Your task to perform on an android device: find photos in the google photos app Image 0: 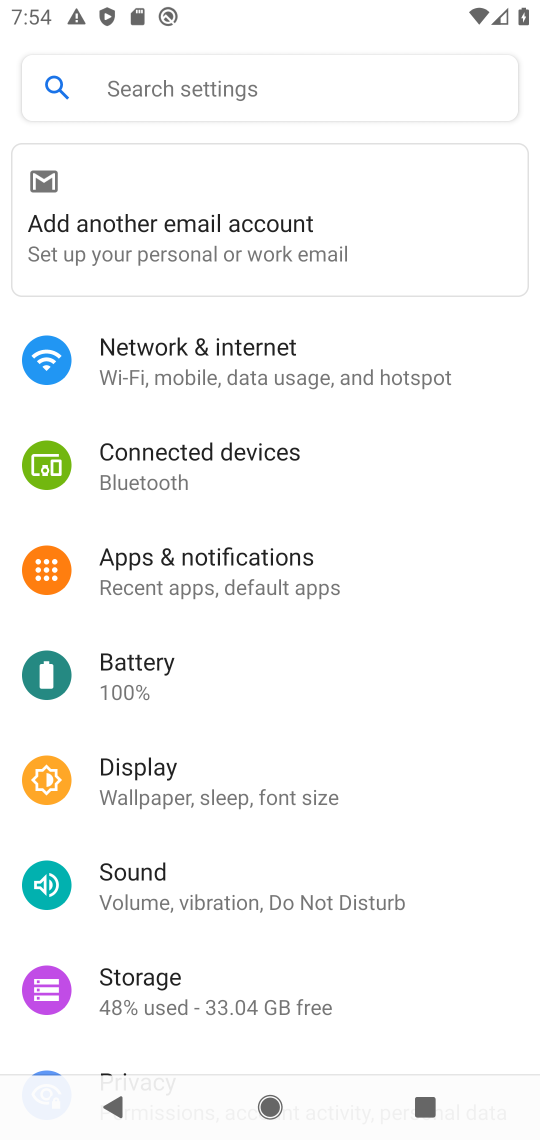
Step 0: press home button
Your task to perform on an android device: find photos in the google photos app Image 1: 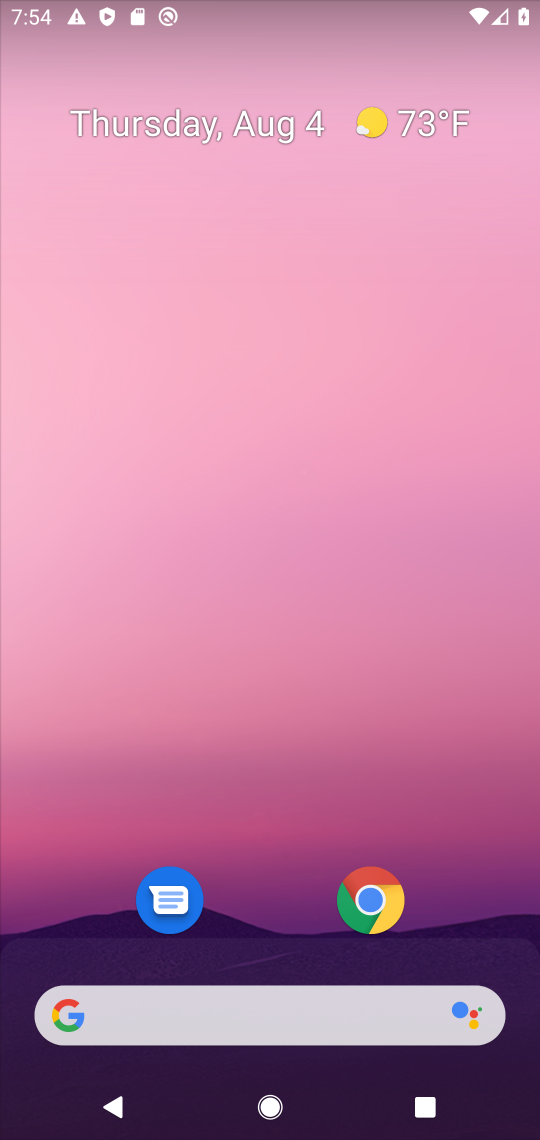
Step 1: click (311, 16)
Your task to perform on an android device: find photos in the google photos app Image 2: 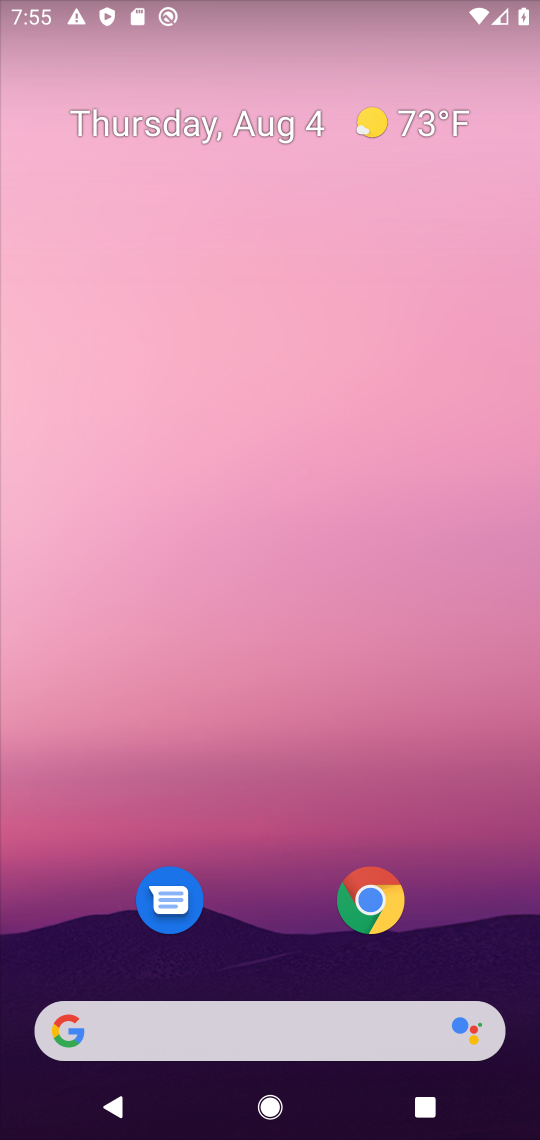
Step 2: drag from (231, 950) to (259, 225)
Your task to perform on an android device: find photos in the google photos app Image 3: 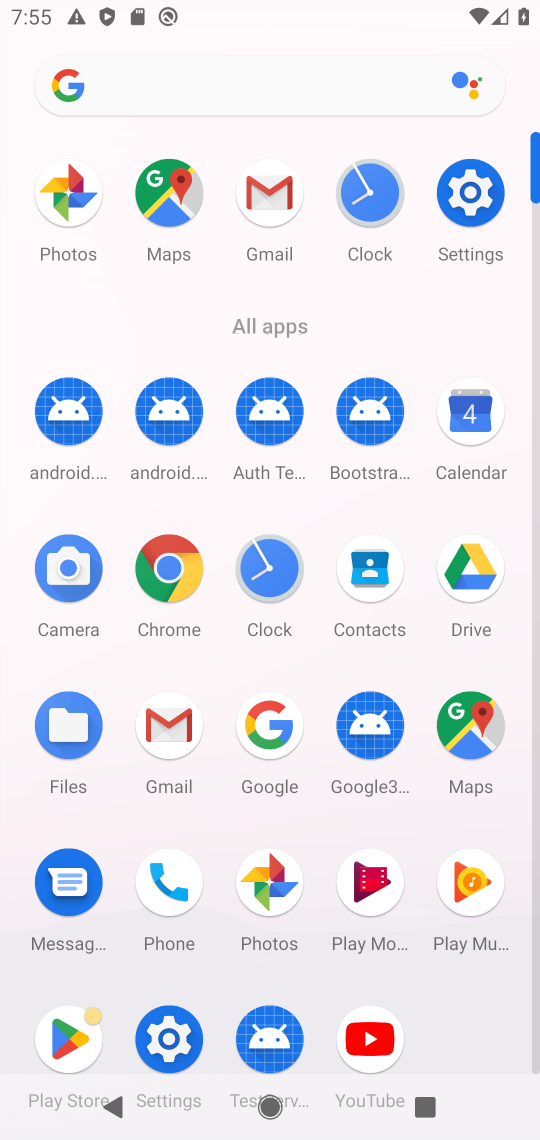
Step 3: click (285, 860)
Your task to perform on an android device: find photos in the google photos app Image 4: 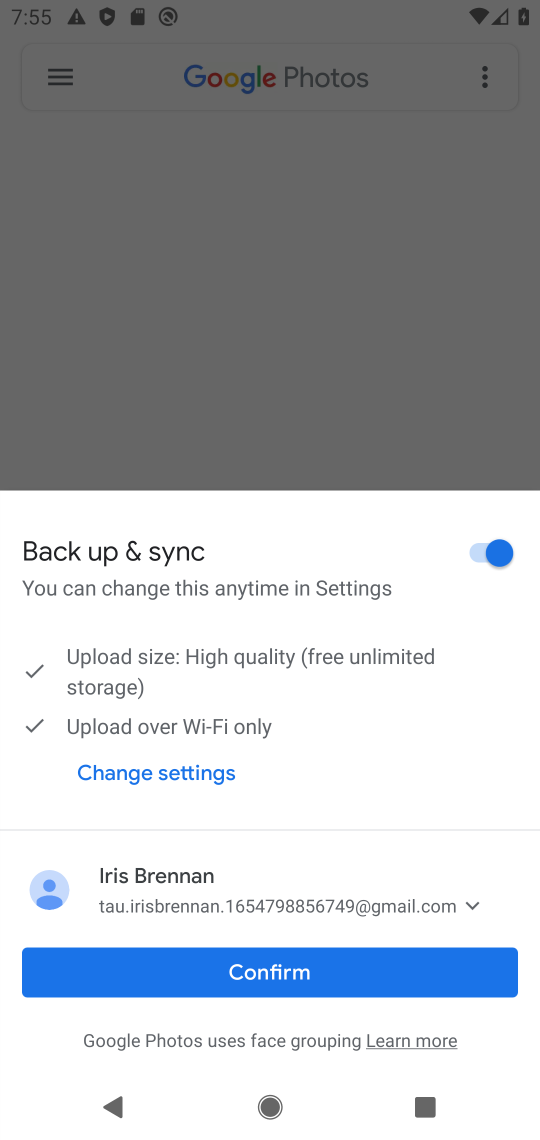
Step 4: click (303, 968)
Your task to perform on an android device: find photos in the google photos app Image 5: 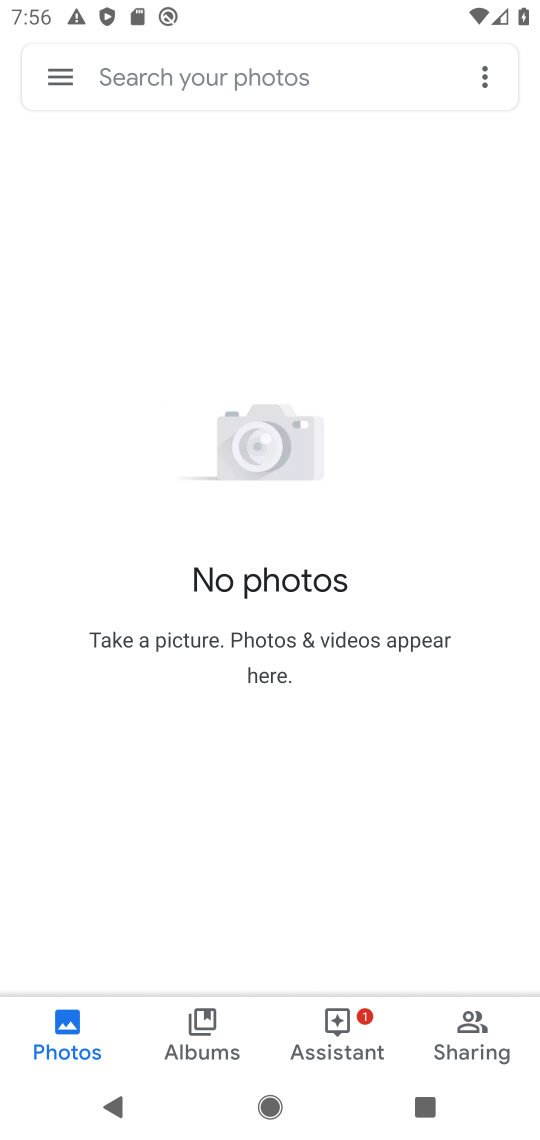
Step 5: task complete